Your task to perform on an android device: show emergency info Image 0: 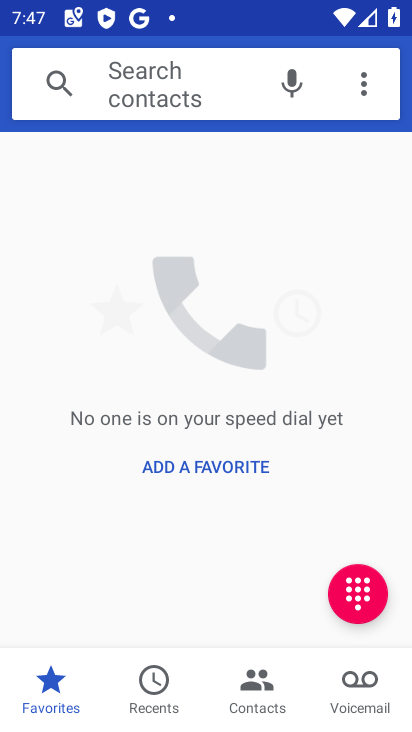
Step 0: press home button
Your task to perform on an android device: show emergency info Image 1: 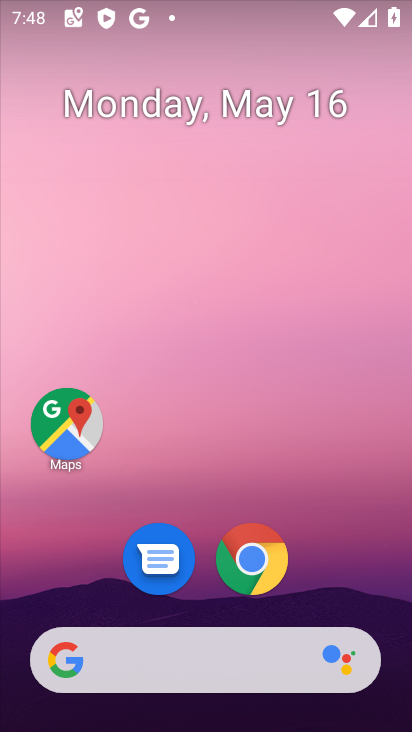
Step 1: drag from (381, 559) to (397, 38)
Your task to perform on an android device: show emergency info Image 2: 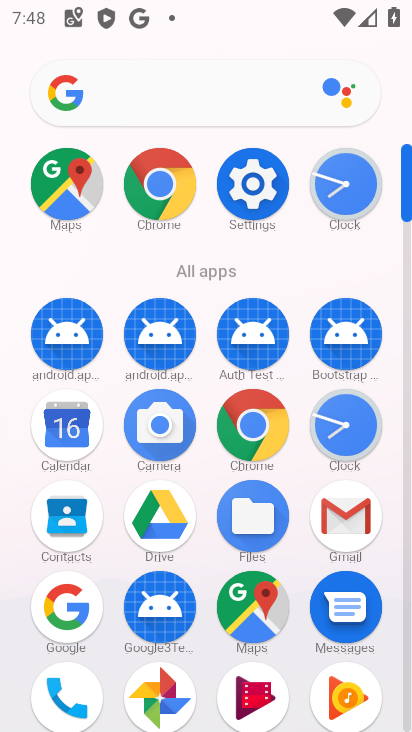
Step 2: click (245, 167)
Your task to perform on an android device: show emergency info Image 3: 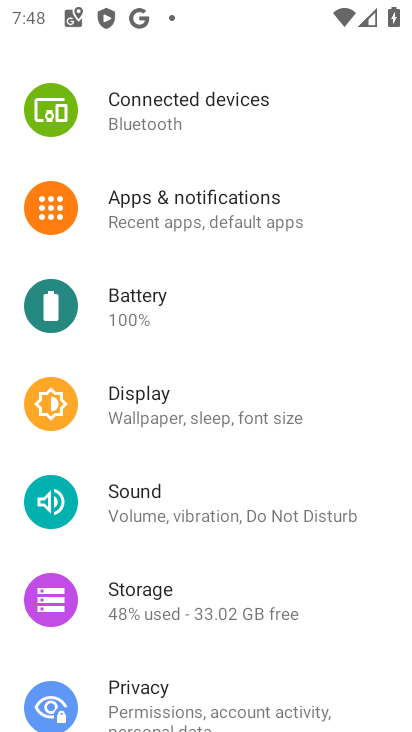
Step 3: drag from (256, 644) to (287, 194)
Your task to perform on an android device: show emergency info Image 4: 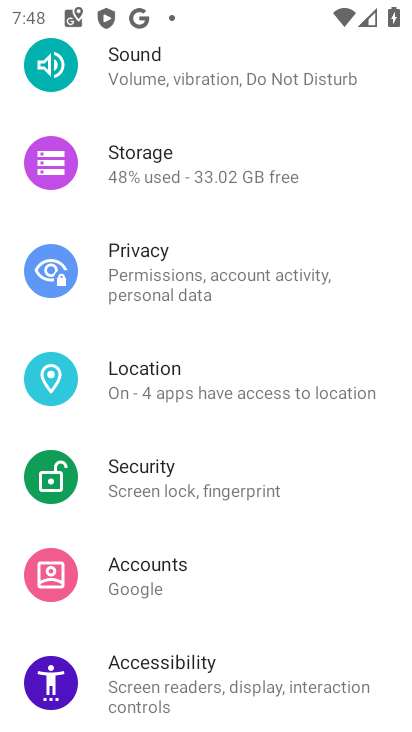
Step 4: drag from (250, 713) to (314, 246)
Your task to perform on an android device: show emergency info Image 5: 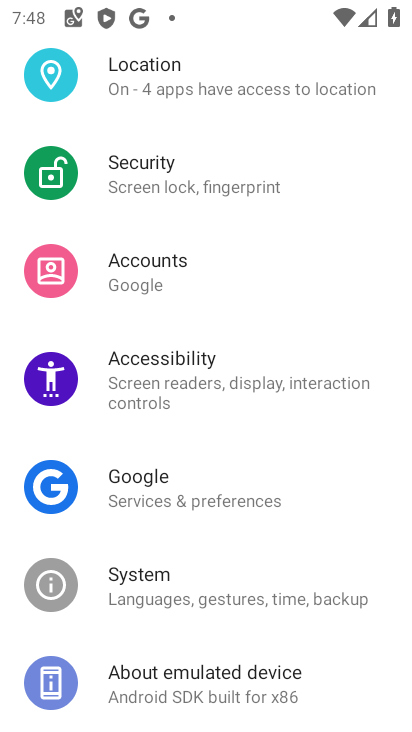
Step 5: drag from (240, 639) to (259, 433)
Your task to perform on an android device: show emergency info Image 6: 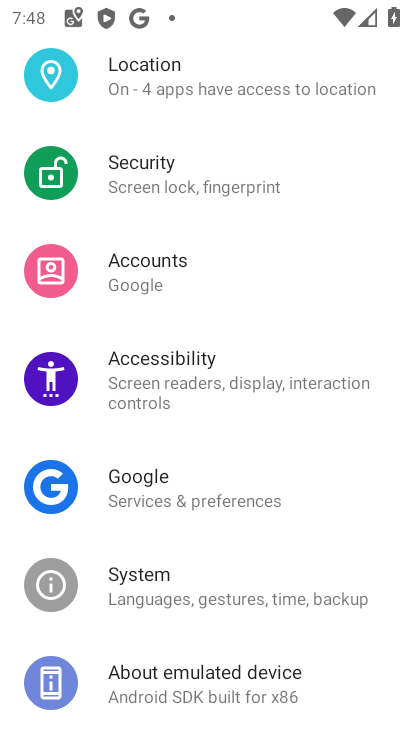
Step 6: click (215, 674)
Your task to perform on an android device: show emergency info Image 7: 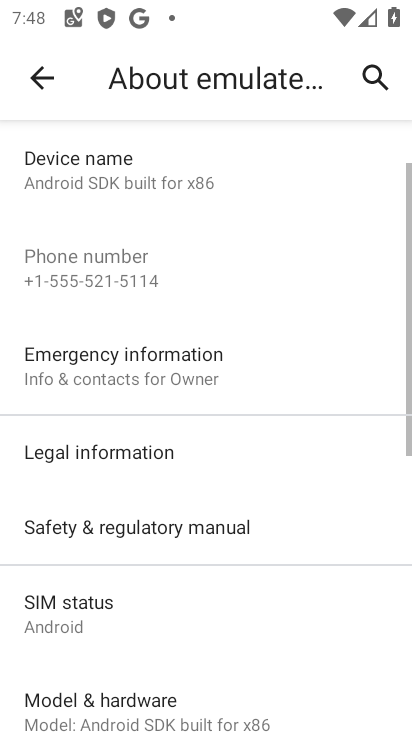
Step 7: click (124, 364)
Your task to perform on an android device: show emergency info Image 8: 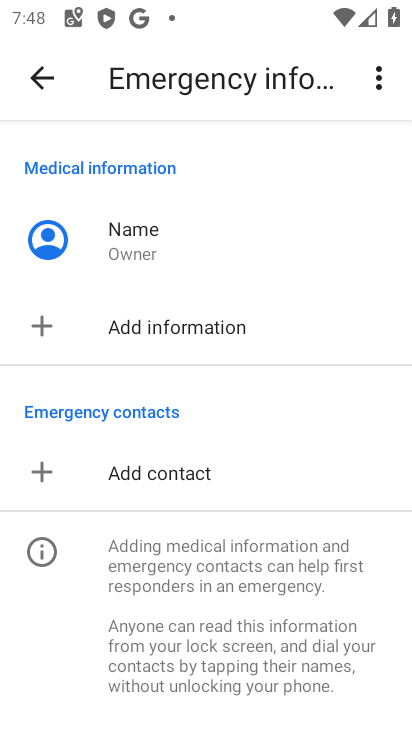
Step 8: task complete